Your task to perform on an android device: Open Amazon Image 0: 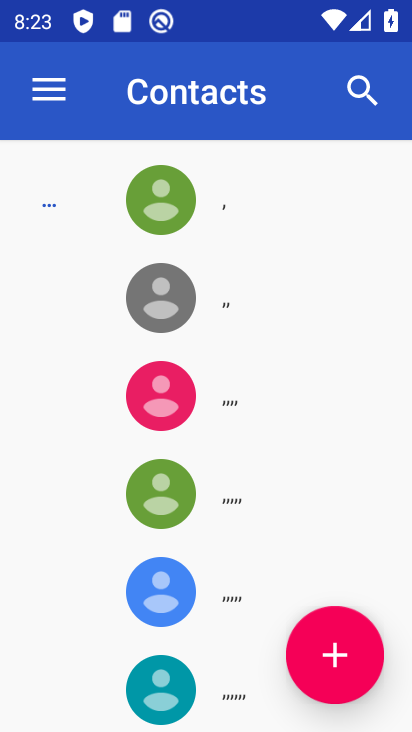
Step 0: press home button
Your task to perform on an android device: Open Amazon Image 1: 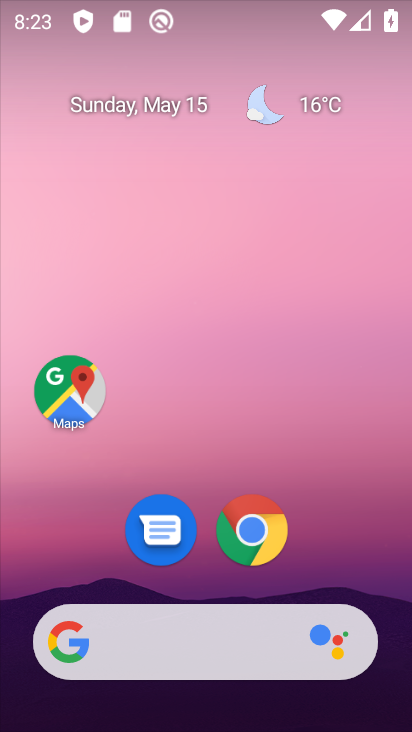
Step 1: click (249, 533)
Your task to perform on an android device: Open Amazon Image 2: 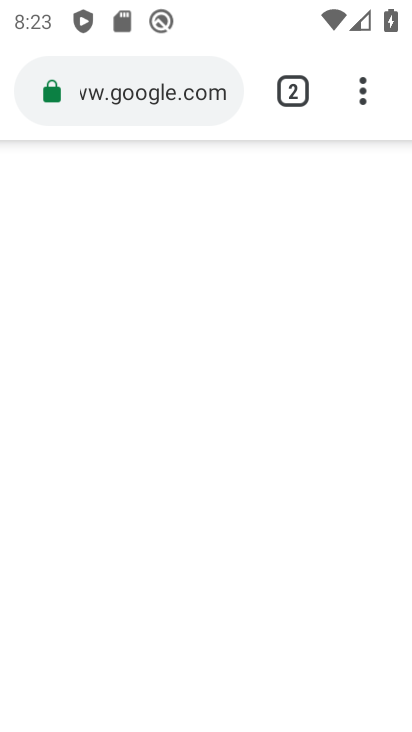
Step 2: click (367, 102)
Your task to perform on an android device: Open Amazon Image 3: 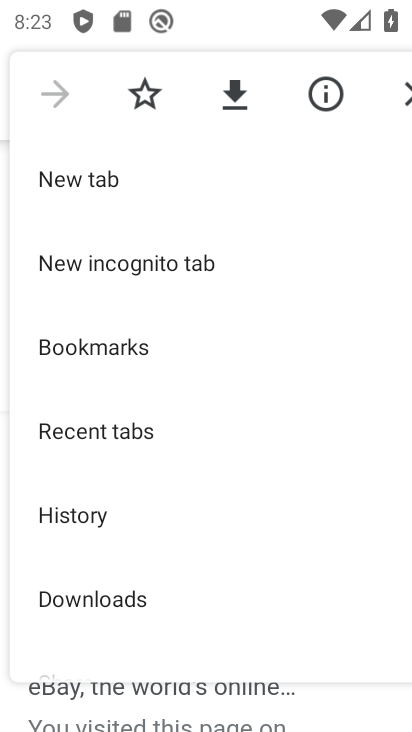
Step 3: click (79, 176)
Your task to perform on an android device: Open Amazon Image 4: 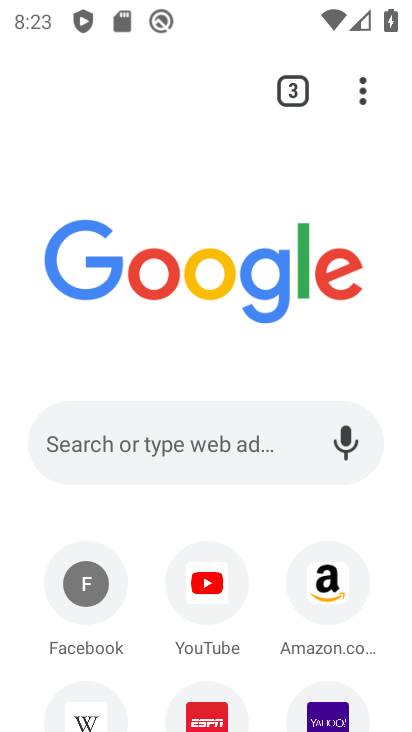
Step 4: click (194, 450)
Your task to perform on an android device: Open Amazon Image 5: 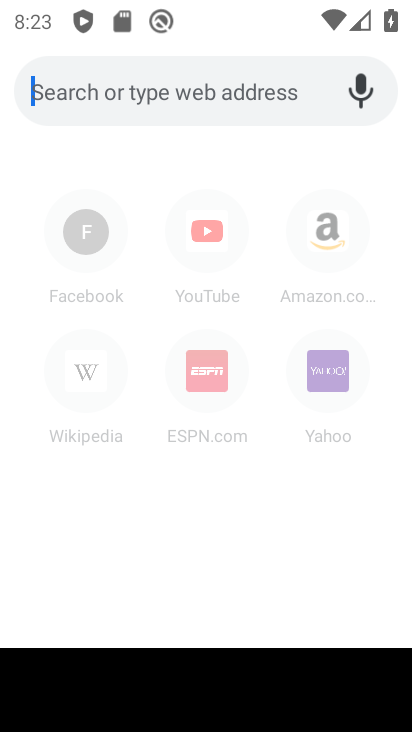
Step 5: type "Amazon"
Your task to perform on an android device: Open Amazon Image 6: 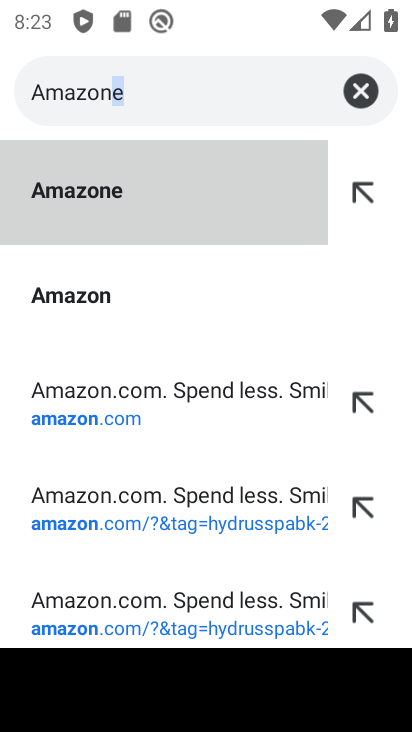
Step 6: click (66, 181)
Your task to perform on an android device: Open Amazon Image 7: 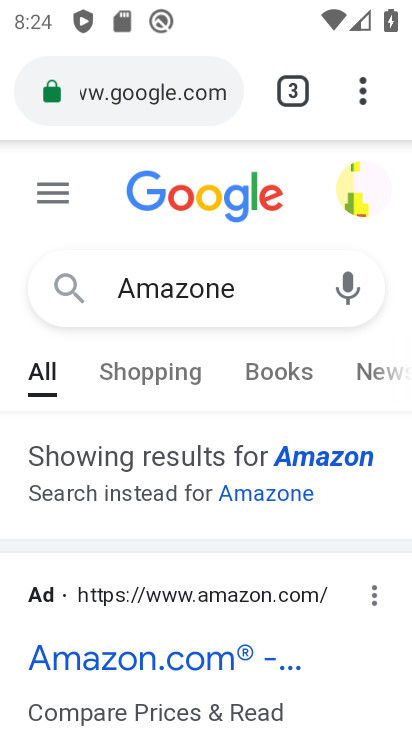
Step 7: click (210, 656)
Your task to perform on an android device: Open Amazon Image 8: 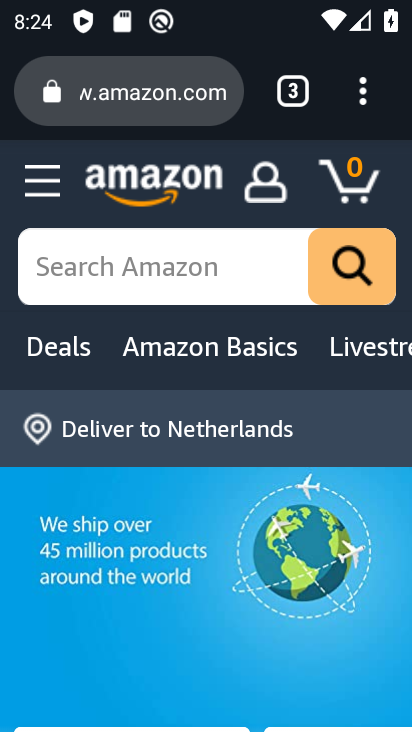
Step 8: task complete